Your task to perform on an android device: Open internet settings Image 0: 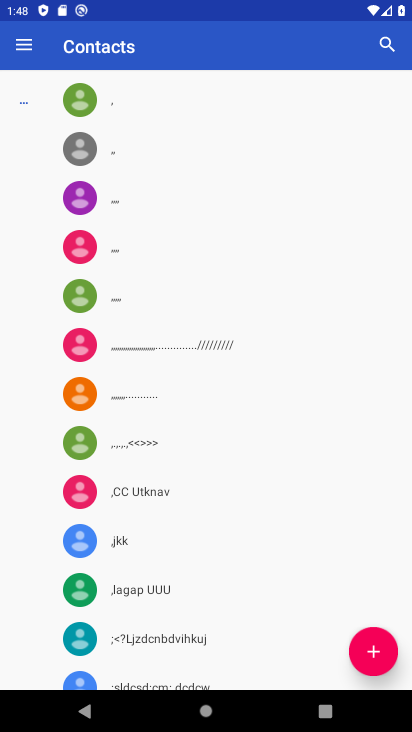
Step 0: click (382, 641)
Your task to perform on an android device: Open internet settings Image 1: 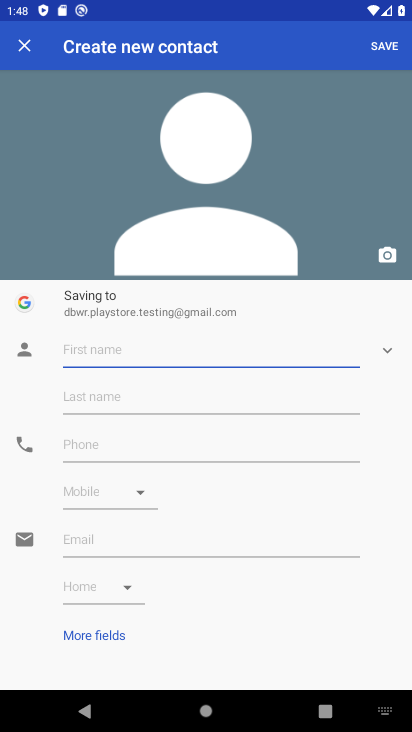
Step 1: type "ioo"
Your task to perform on an android device: Open internet settings Image 2: 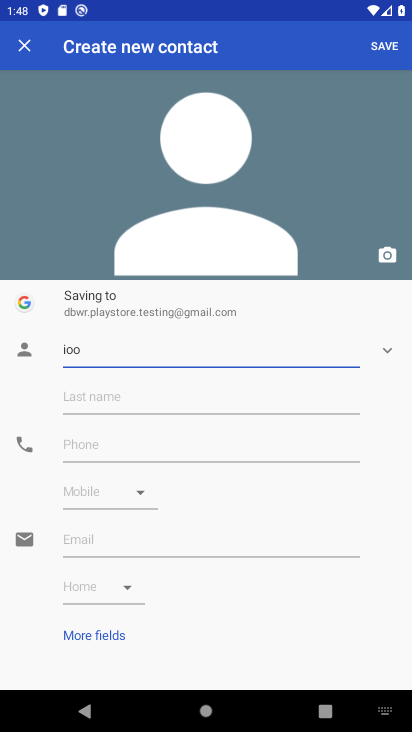
Step 2: click (75, 431)
Your task to perform on an android device: Open internet settings Image 3: 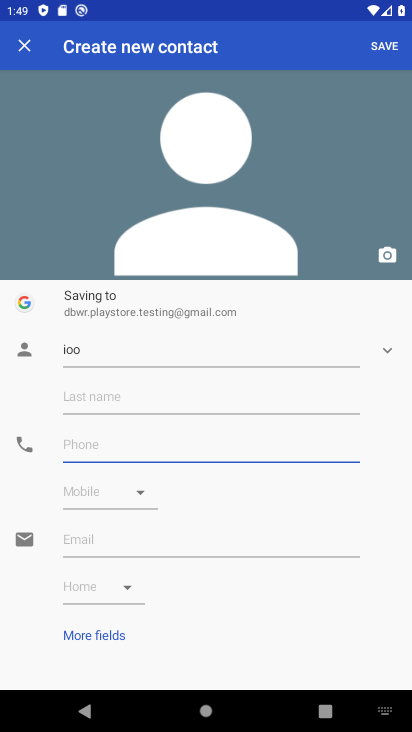
Step 3: type "987656999"
Your task to perform on an android device: Open internet settings Image 4: 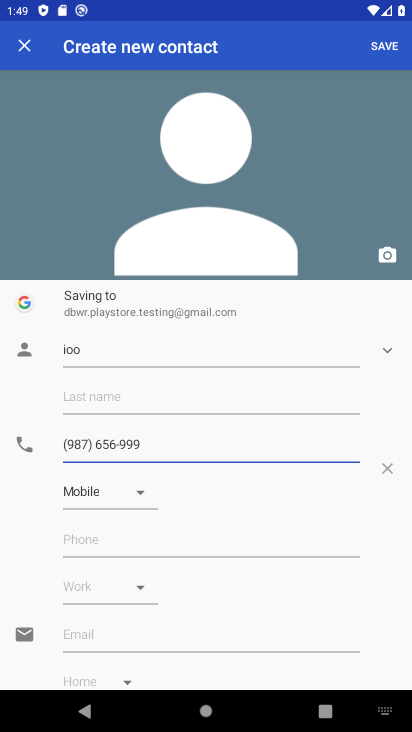
Step 4: click (371, 47)
Your task to perform on an android device: Open internet settings Image 5: 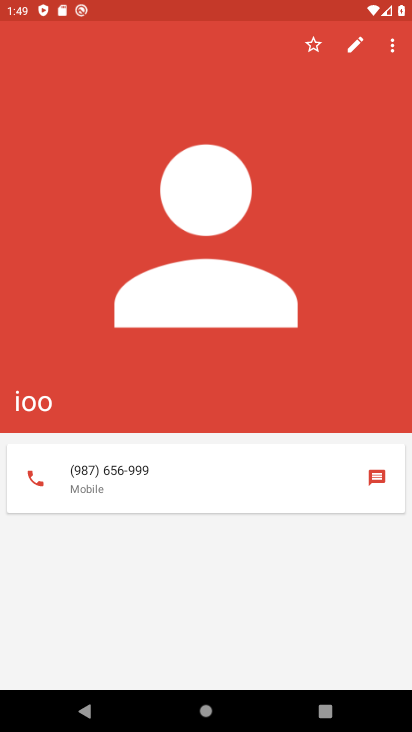
Step 5: task complete